Your task to perform on an android device: Open battery settings Image 0: 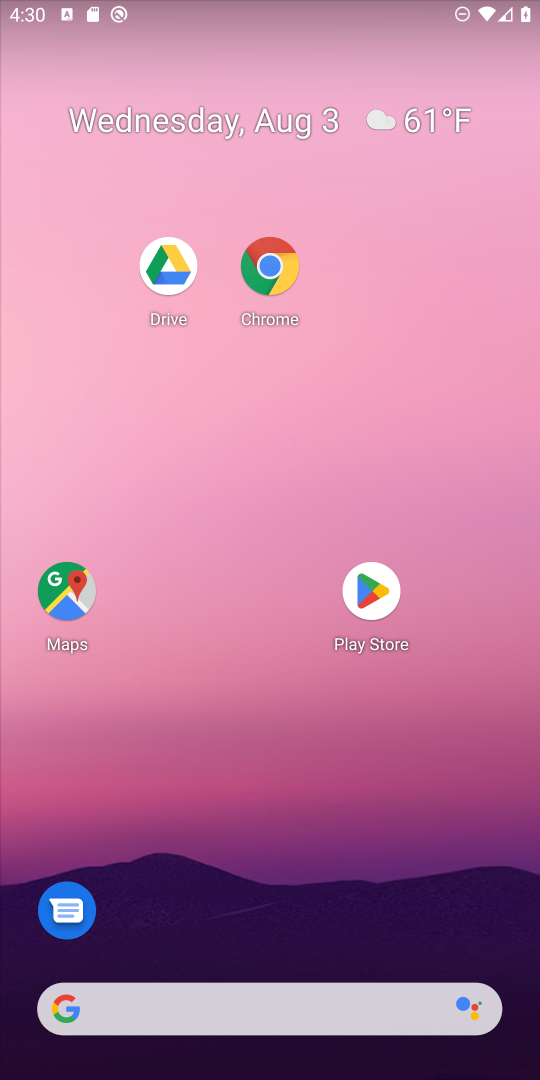
Step 0: drag from (422, 378) to (404, 8)
Your task to perform on an android device: Open battery settings Image 1: 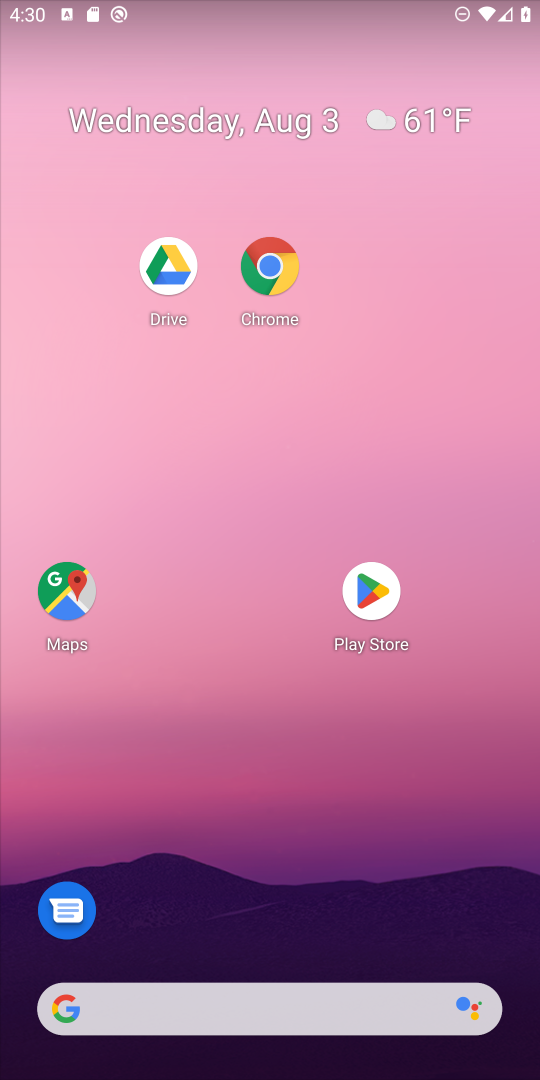
Step 1: drag from (285, 960) to (320, 0)
Your task to perform on an android device: Open battery settings Image 2: 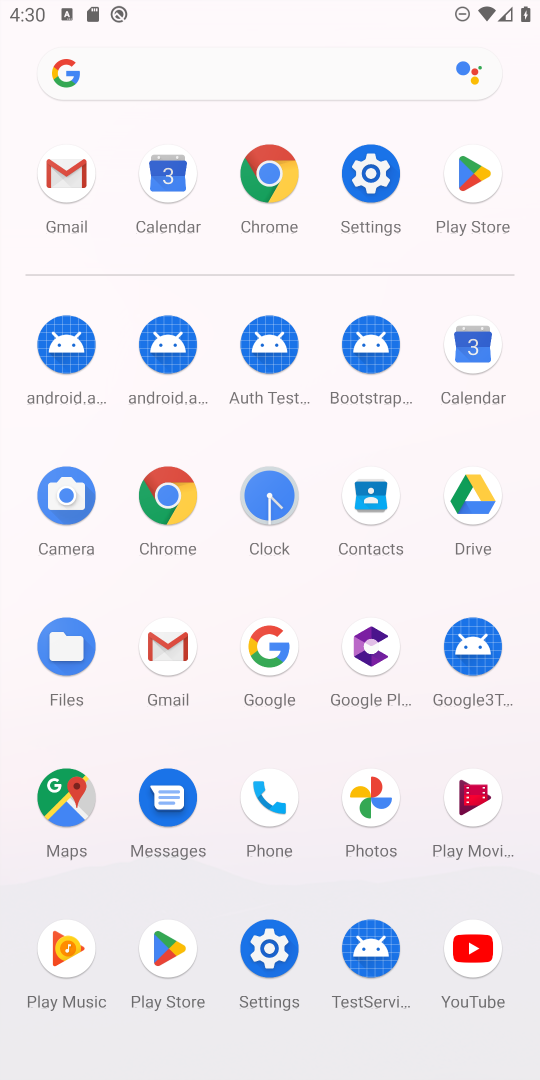
Step 2: click (360, 161)
Your task to perform on an android device: Open battery settings Image 3: 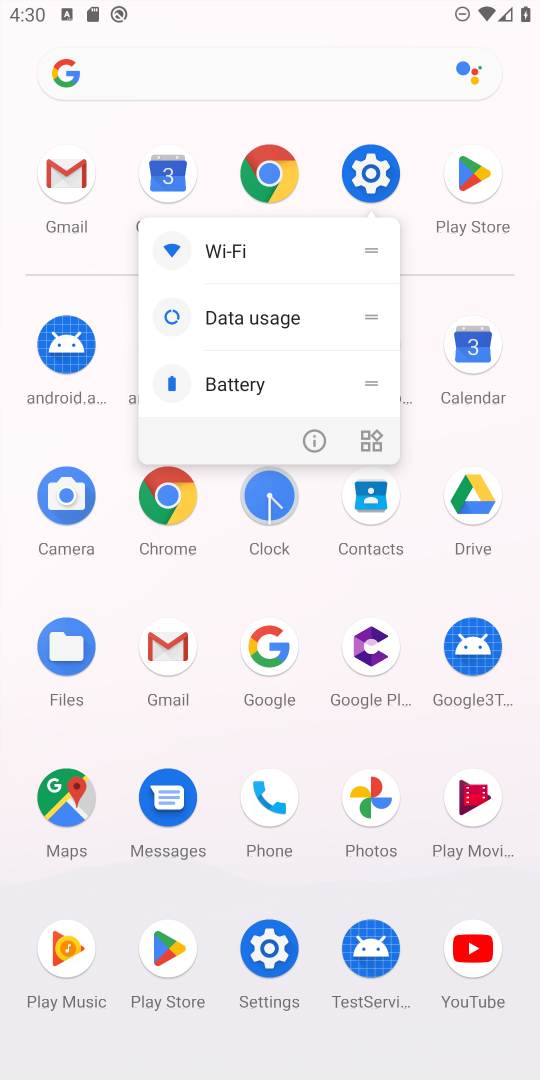
Step 3: click (360, 161)
Your task to perform on an android device: Open battery settings Image 4: 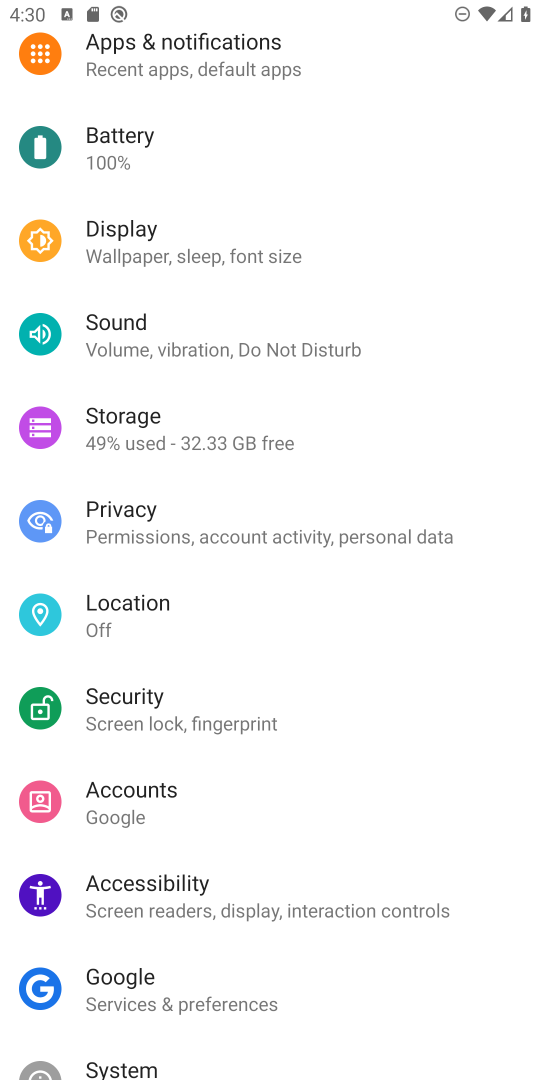
Step 4: click (153, 149)
Your task to perform on an android device: Open battery settings Image 5: 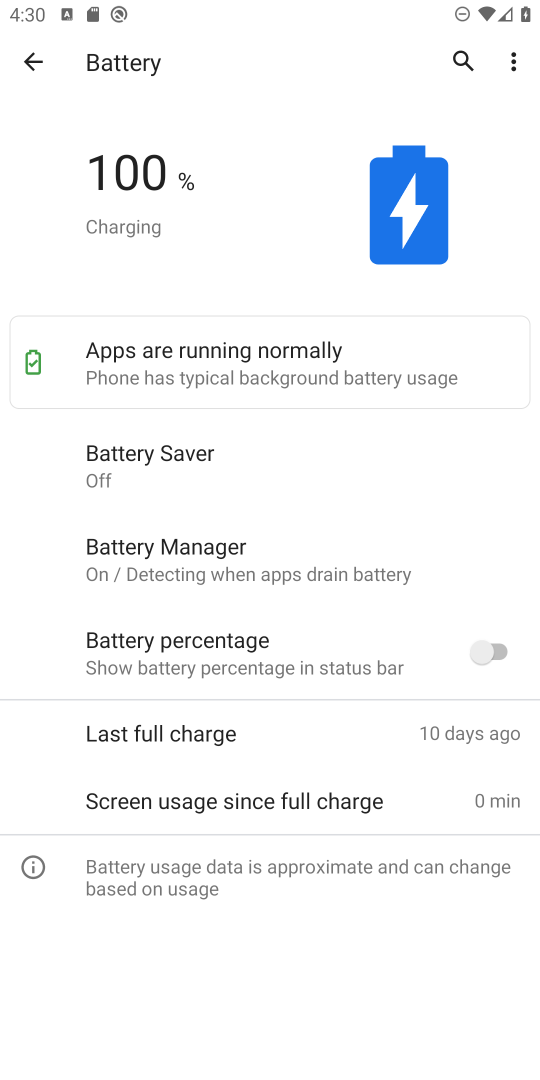
Step 5: task complete